Your task to perform on an android device: Open Yahoo.com Image 0: 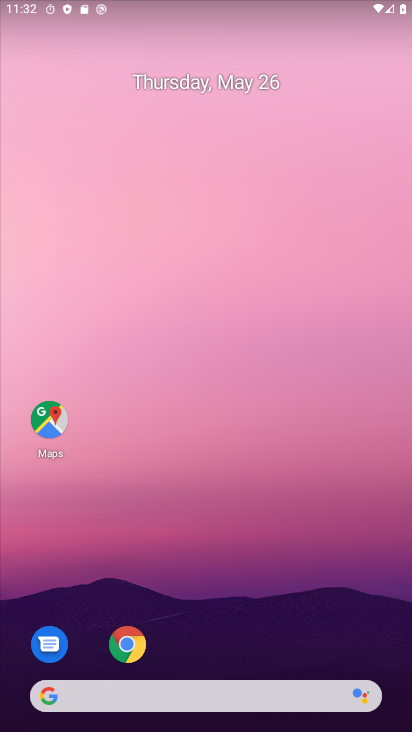
Step 0: click (137, 631)
Your task to perform on an android device: Open Yahoo.com Image 1: 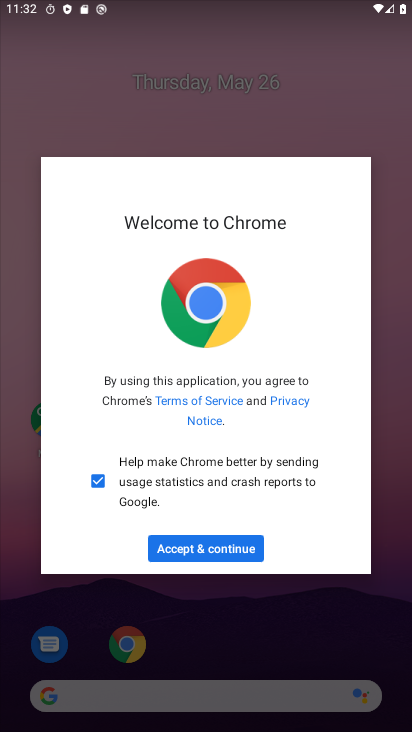
Step 1: click (234, 542)
Your task to perform on an android device: Open Yahoo.com Image 2: 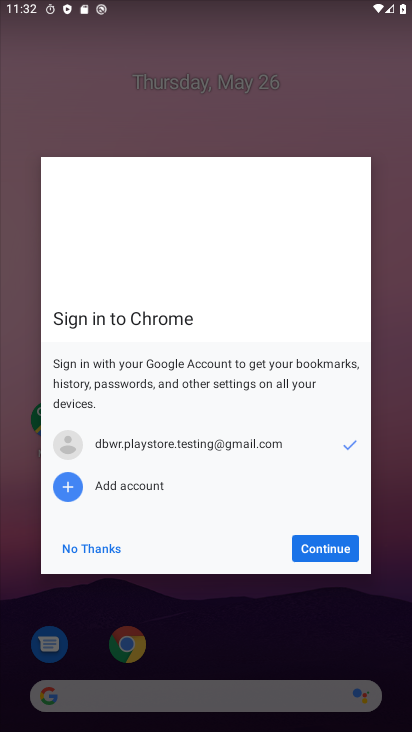
Step 2: click (345, 536)
Your task to perform on an android device: Open Yahoo.com Image 3: 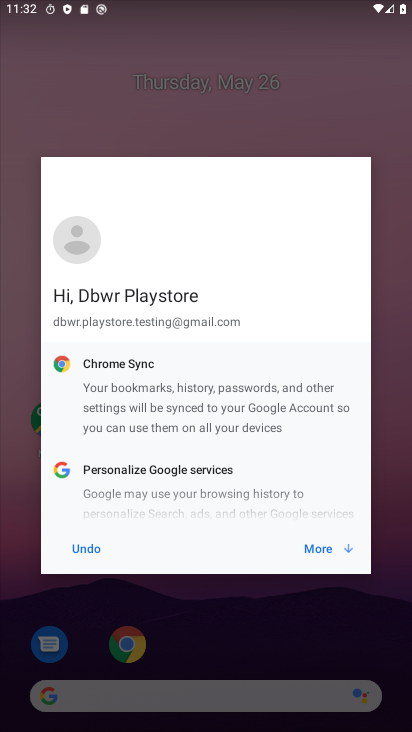
Step 3: click (345, 536)
Your task to perform on an android device: Open Yahoo.com Image 4: 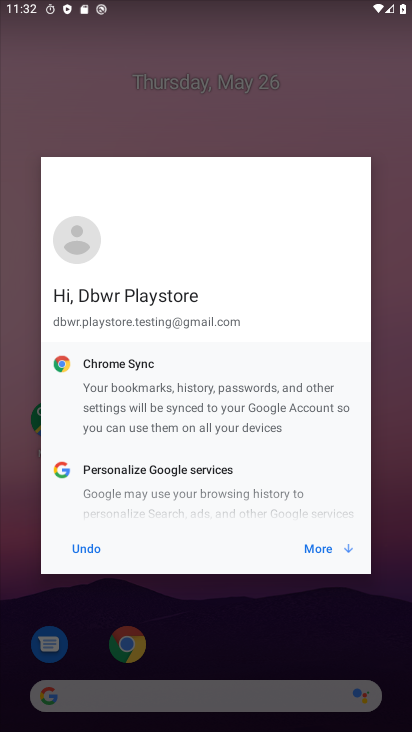
Step 4: click (345, 536)
Your task to perform on an android device: Open Yahoo.com Image 5: 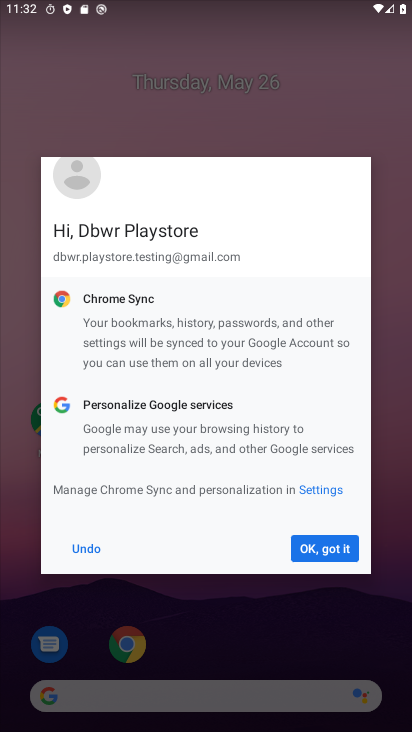
Step 5: click (345, 536)
Your task to perform on an android device: Open Yahoo.com Image 6: 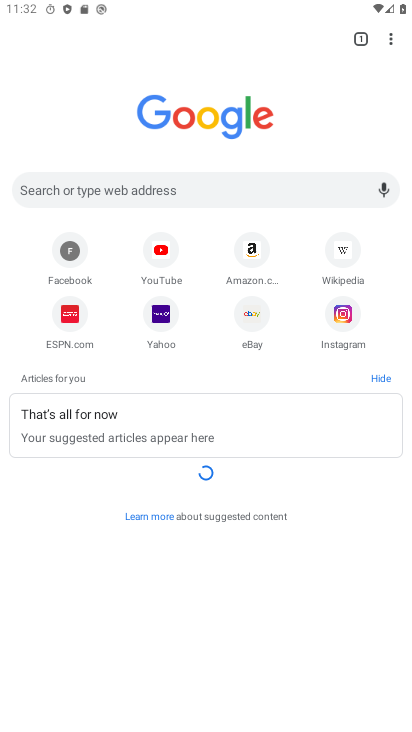
Step 6: click (148, 315)
Your task to perform on an android device: Open Yahoo.com Image 7: 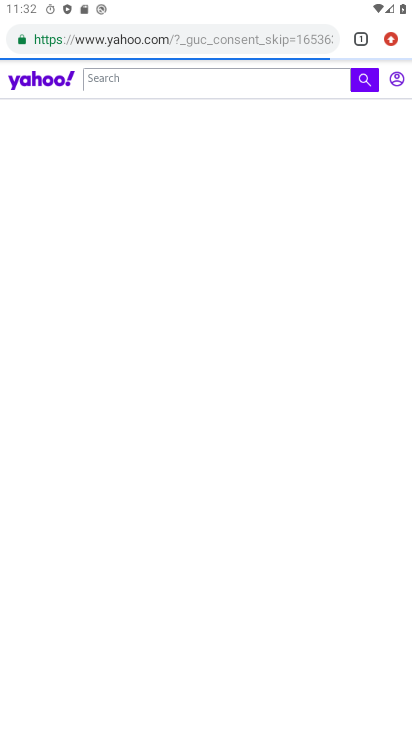
Step 7: task complete